Your task to perform on an android device: Go to battery settings Image 0: 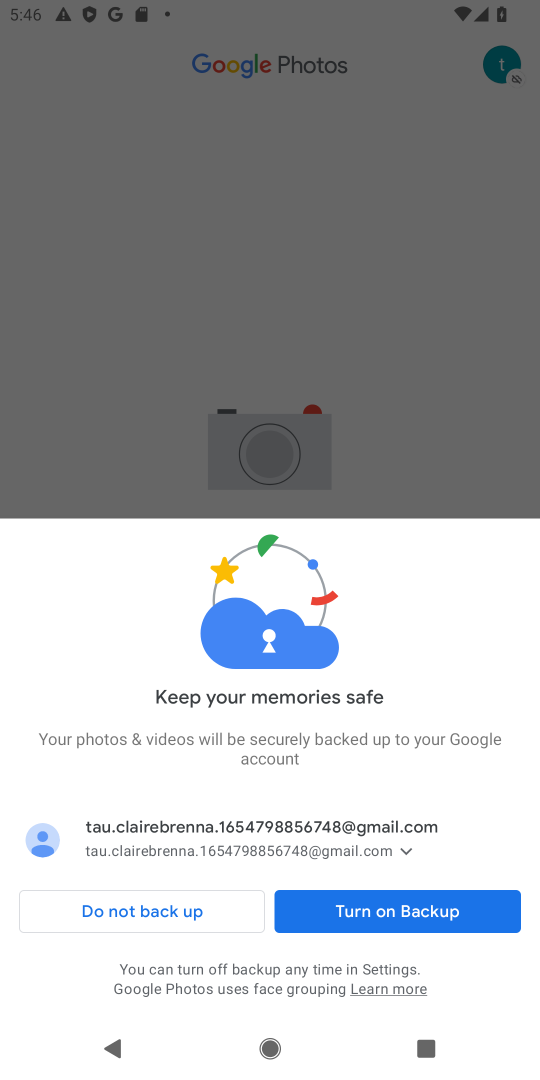
Step 0: press home button
Your task to perform on an android device: Go to battery settings Image 1: 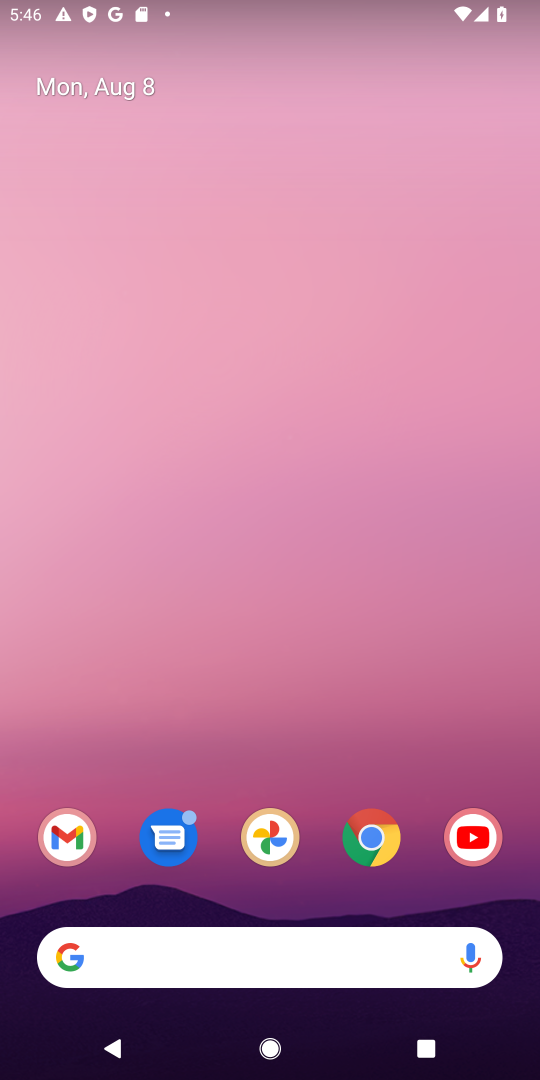
Step 1: drag from (391, 886) to (500, 146)
Your task to perform on an android device: Go to battery settings Image 2: 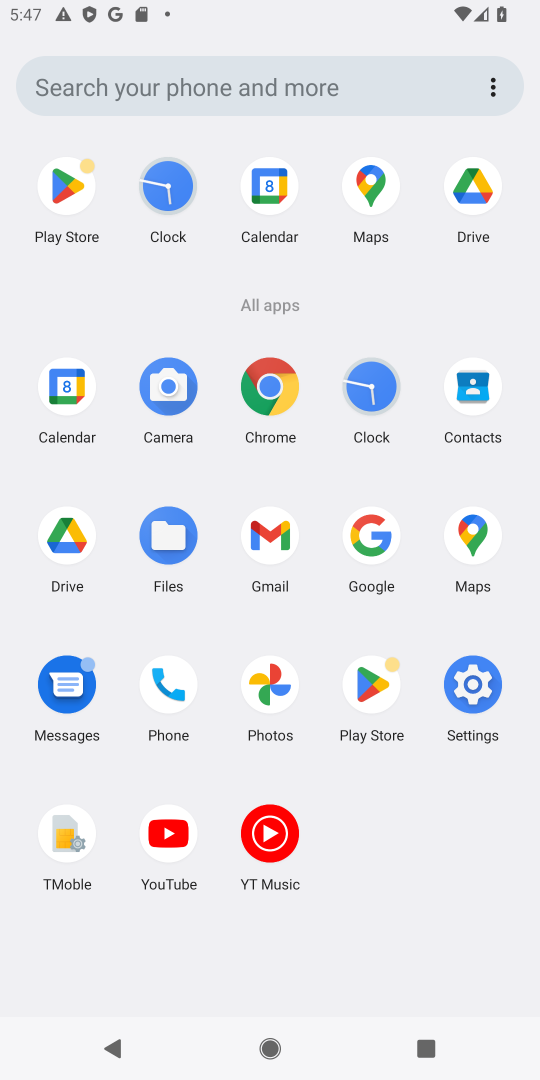
Step 2: click (491, 718)
Your task to perform on an android device: Go to battery settings Image 3: 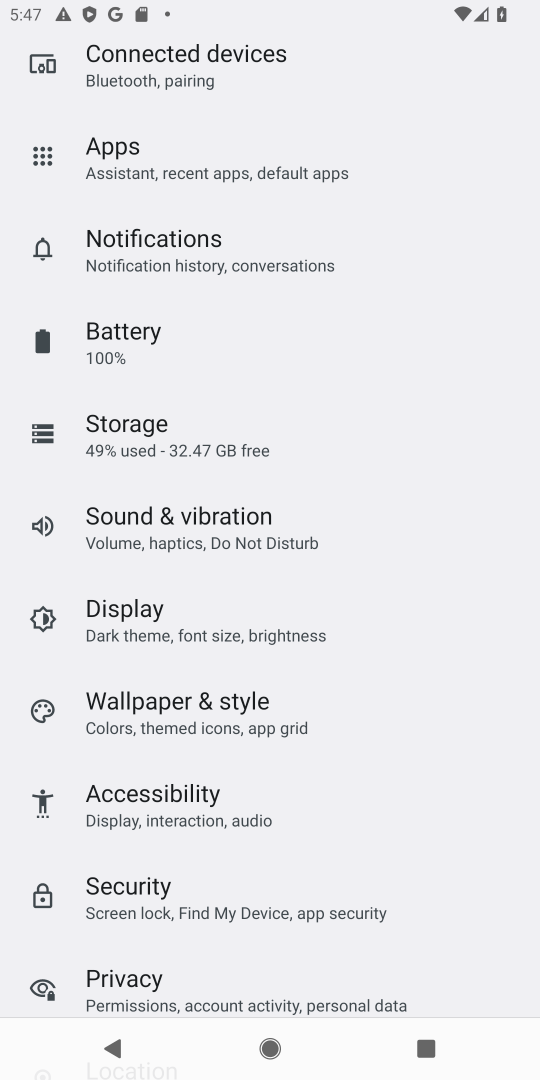
Step 3: click (82, 353)
Your task to perform on an android device: Go to battery settings Image 4: 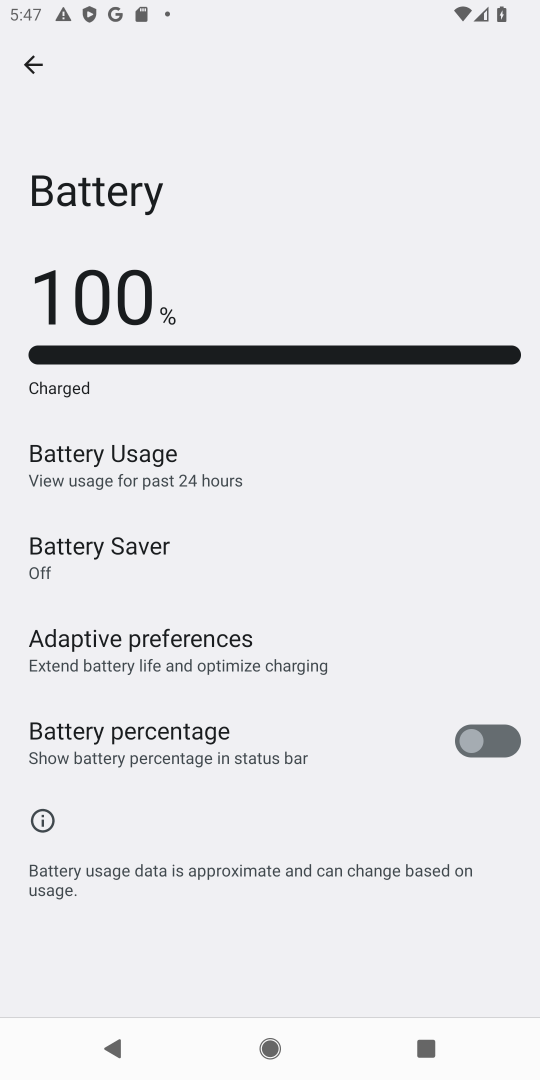
Step 4: task complete